Your task to perform on an android device: turn on wifi Image 0: 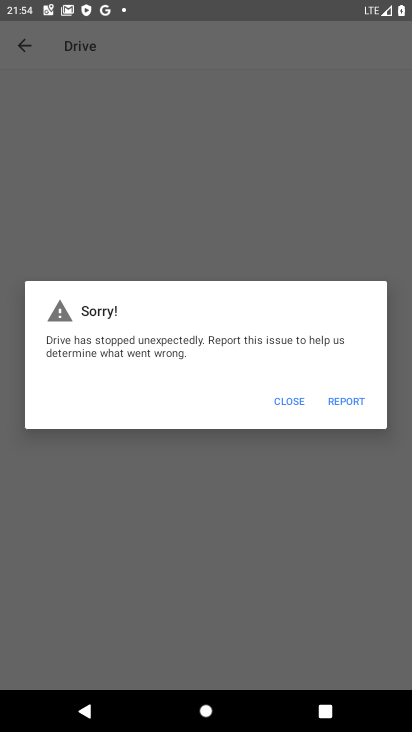
Step 0: press home button
Your task to perform on an android device: turn on wifi Image 1: 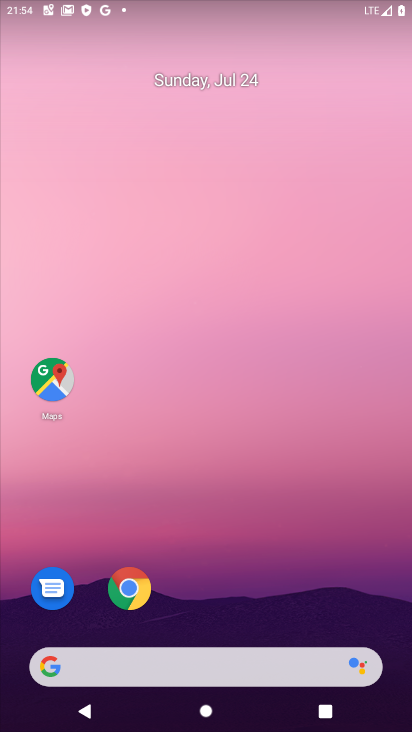
Step 1: drag from (193, 667) to (220, 2)
Your task to perform on an android device: turn on wifi Image 2: 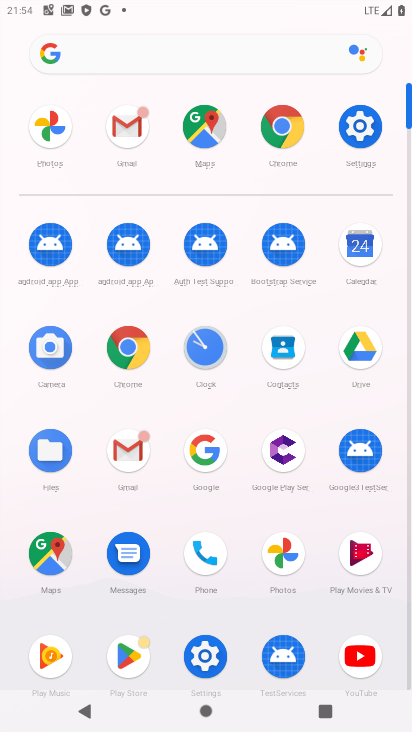
Step 2: click (348, 135)
Your task to perform on an android device: turn on wifi Image 3: 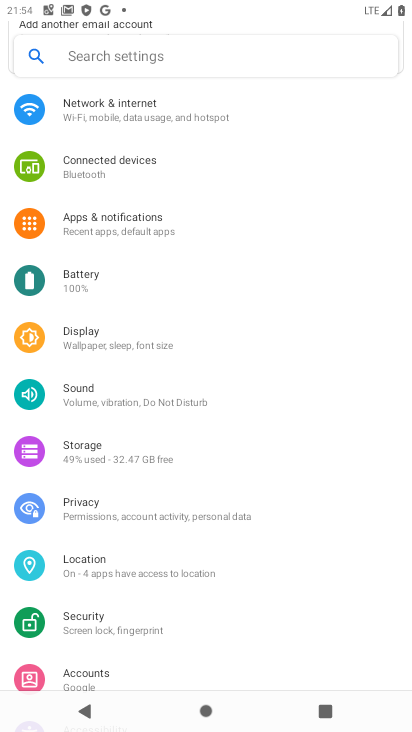
Step 3: click (116, 112)
Your task to perform on an android device: turn on wifi Image 4: 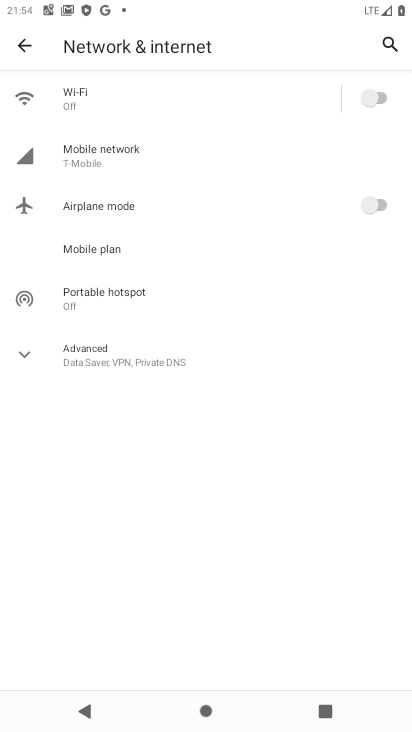
Step 4: click (376, 104)
Your task to perform on an android device: turn on wifi Image 5: 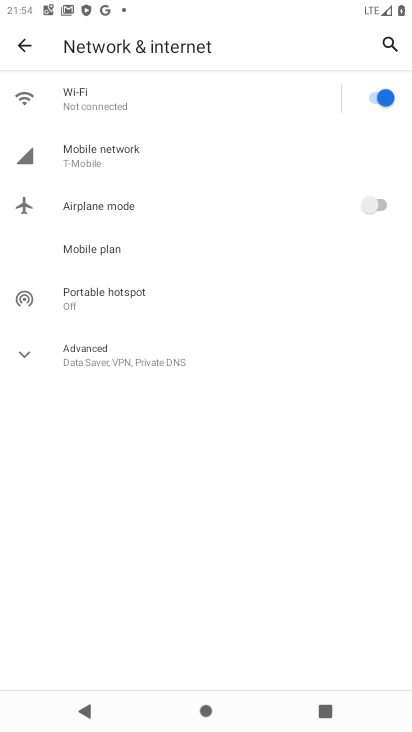
Step 5: task complete